Your task to perform on an android device: clear all cookies in the chrome app Image 0: 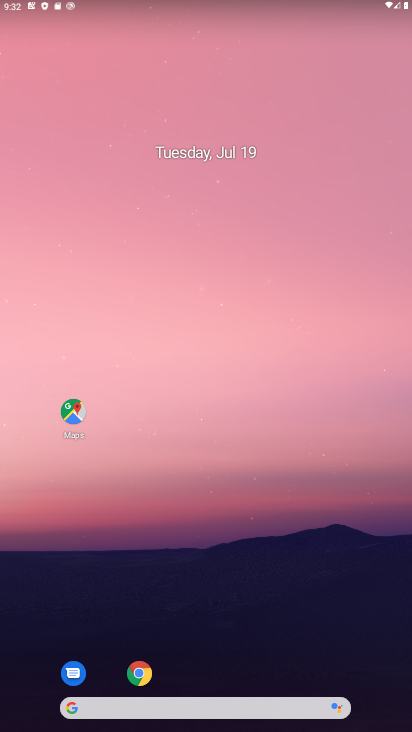
Step 0: click (152, 671)
Your task to perform on an android device: clear all cookies in the chrome app Image 1: 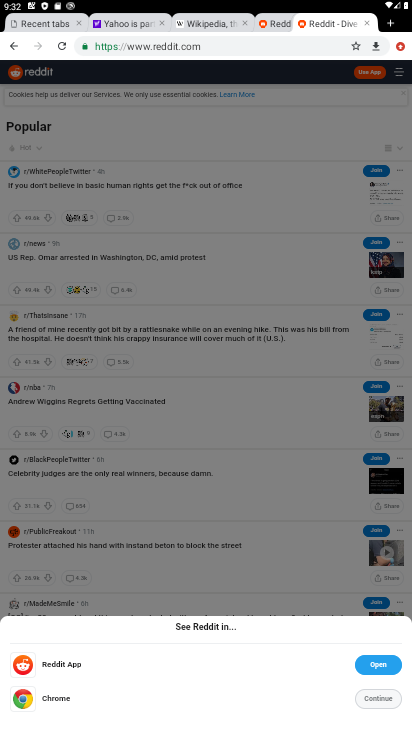
Step 1: click (395, 45)
Your task to perform on an android device: clear all cookies in the chrome app Image 2: 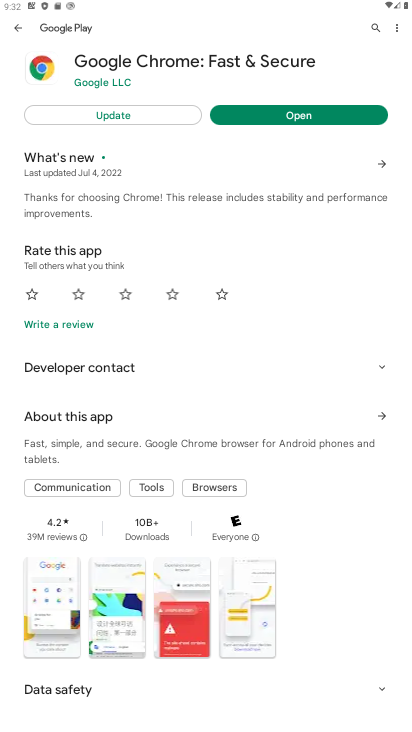
Step 2: press back button
Your task to perform on an android device: clear all cookies in the chrome app Image 3: 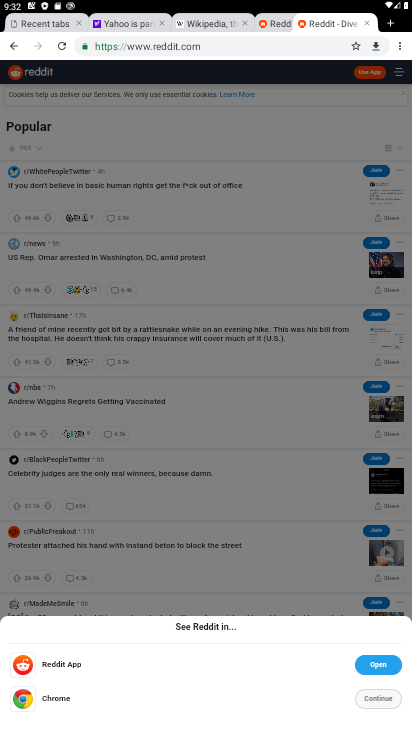
Step 3: drag from (399, 44) to (309, 183)
Your task to perform on an android device: clear all cookies in the chrome app Image 4: 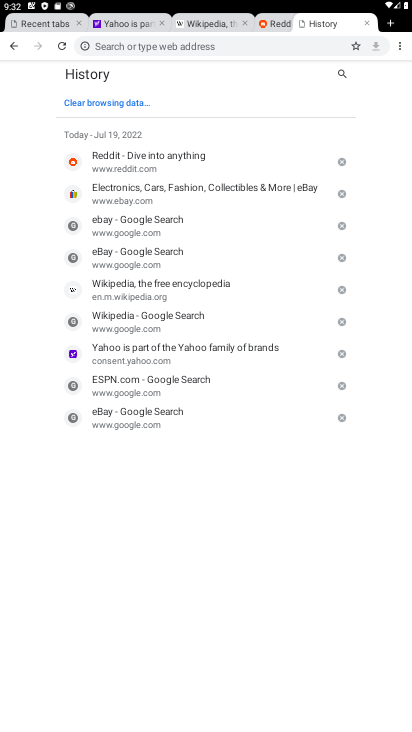
Step 4: click (106, 101)
Your task to perform on an android device: clear all cookies in the chrome app Image 5: 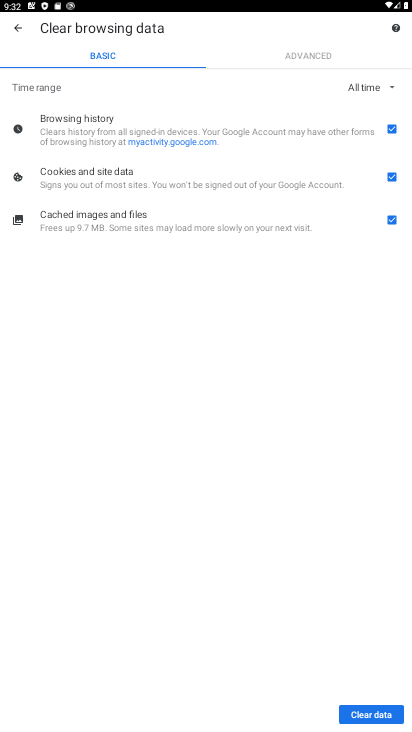
Step 5: click (376, 708)
Your task to perform on an android device: clear all cookies in the chrome app Image 6: 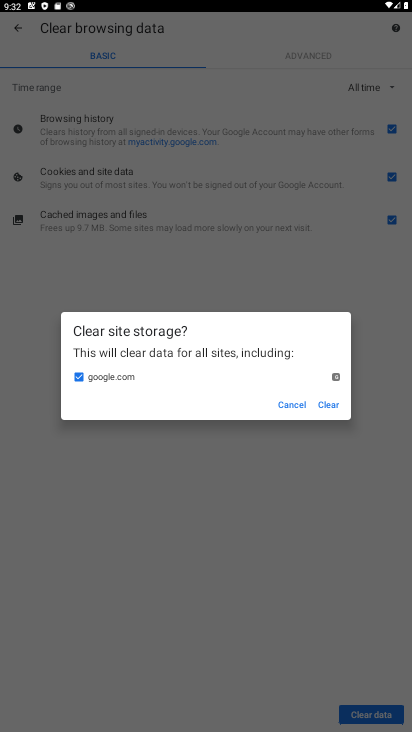
Step 6: click (329, 403)
Your task to perform on an android device: clear all cookies in the chrome app Image 7: 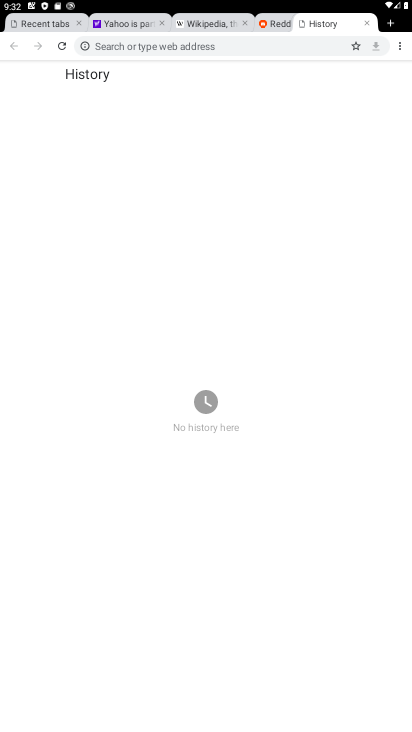
Step 7: task complete